Your task to perform on an android device: set default search engine in the chrome app Image 0: 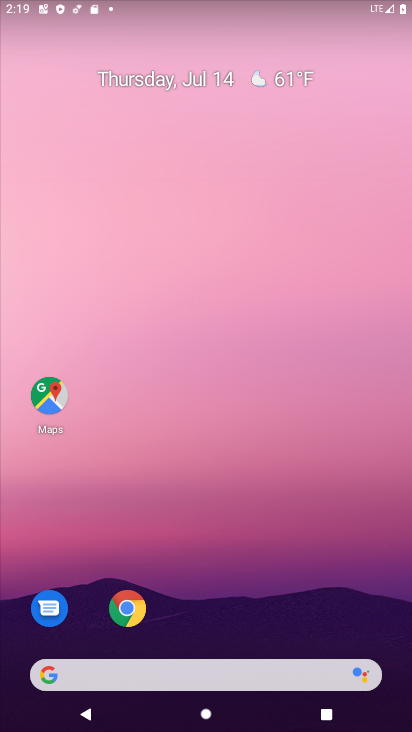
Step 0: drag from (191, 575) to (200, 346)
Your task to perform on an android device: set default search engine in the chrome app Image 1: 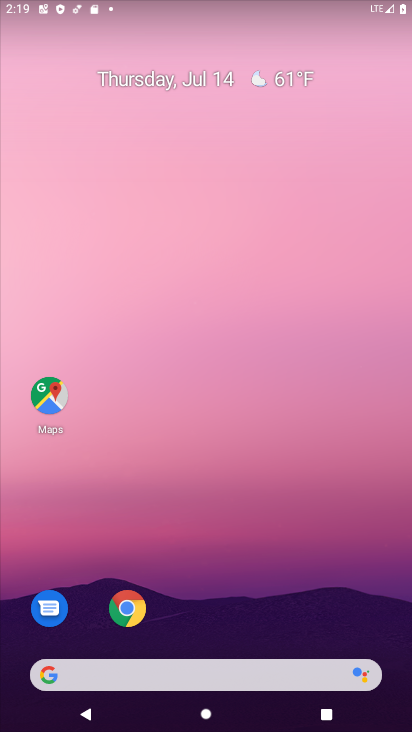
Step 1: drag from (227, 613) to (278, 168)
Your task to perform on an android device: set default search engine in the chrome app Image 2: 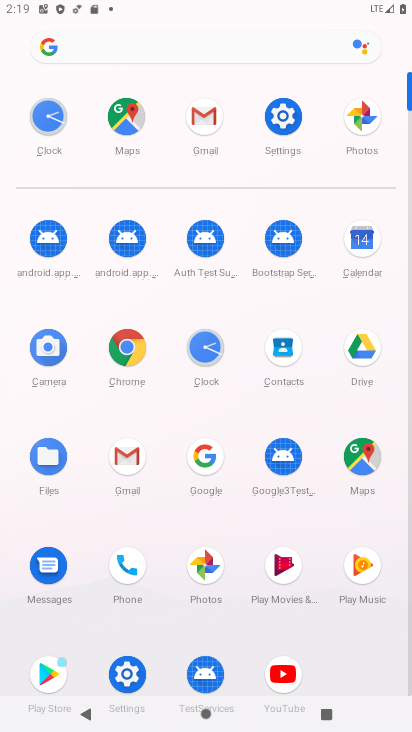
Step 2: click (121, 341)
Your task to perform on an android device: set default search engine in the chrome app Image 3: 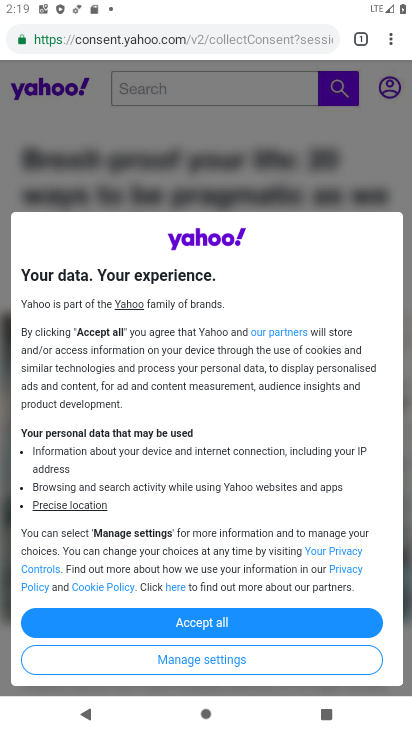
Step 3: click (390, 36)
Your task to perform on an android device: set default search engine in the chrome app Image 4: 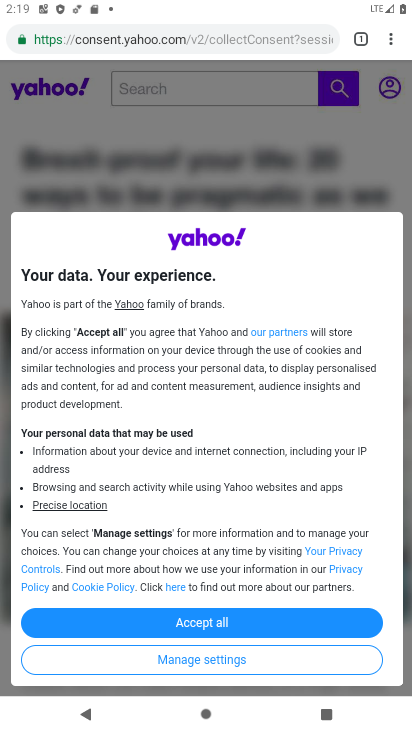
Step 4: click (388, 41)
Your task to perform on an android device: set default search engine in the chrome app Image 5: 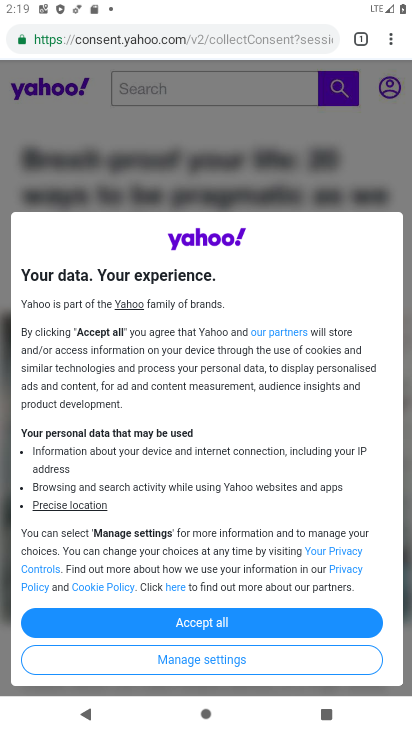
Step 5: click (388, 41)
Your task to perform on an android device: set default search engine in the chrome app Image 6: 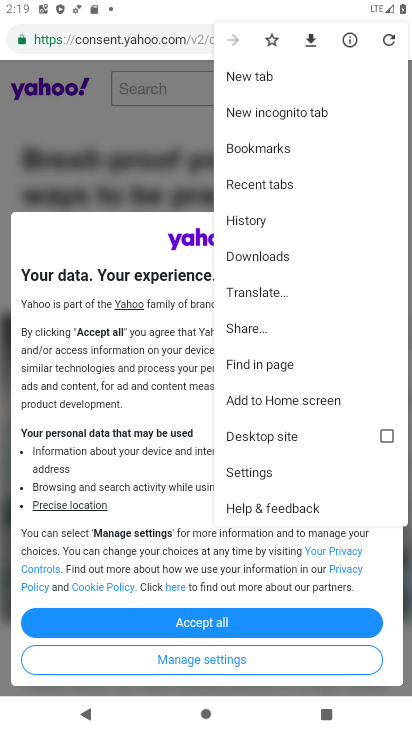
Step 6: click (248, 466)
Your task to perform on an android device: set default search engine in the chrome app Image 7: 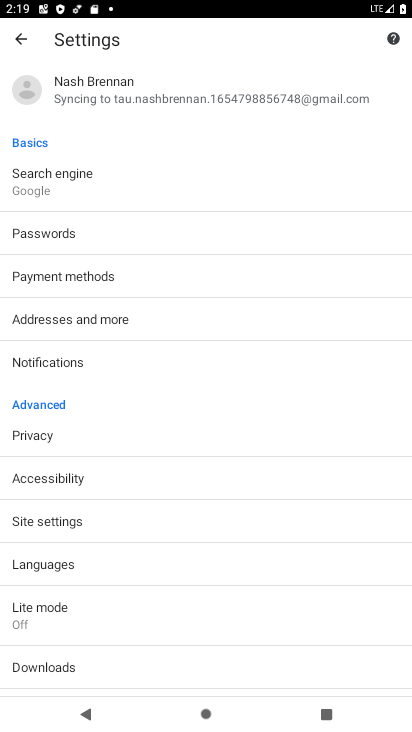
Step 7: click (40, 184)
Your task to perform on an android device: set default search engine in the chrome app Image 8: 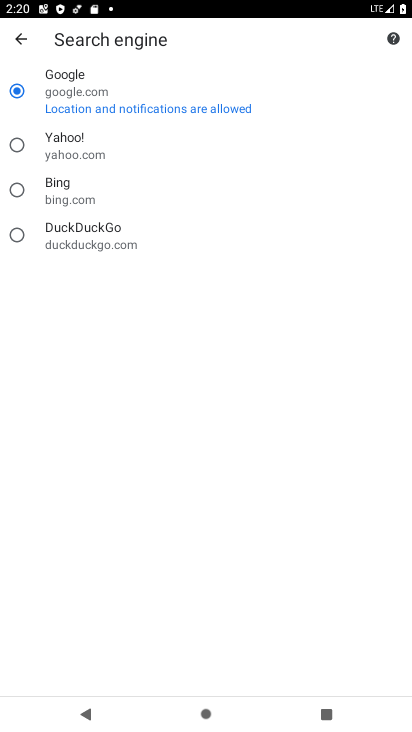
Step 8: task complete